Your task to perform on an android device: Open calendar and show me the third week of next month Image 0: 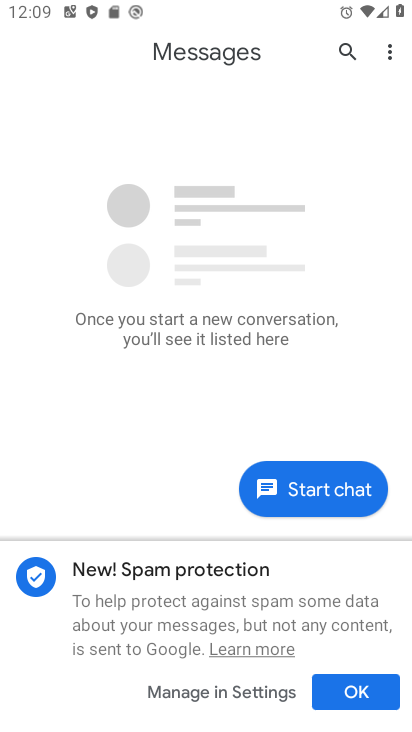
Step 0: press back button
Your task to perform on an android device: Open calendar and show me the third week of next month Image 1: 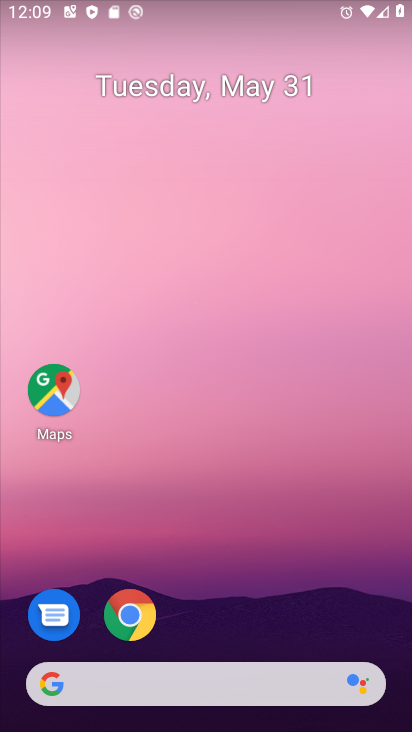
Step 1: drag from (354, 629) to (374, 206)
Your task to perform on an android device: Open calendar and show me the third week of next month Image 2: 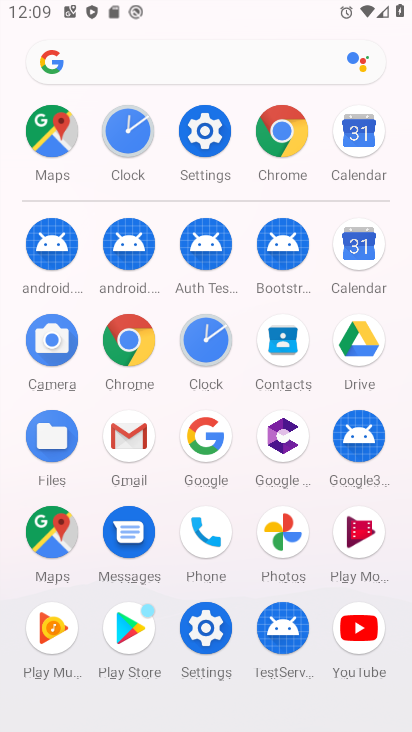
Step 2: click (360, 261)
Your task to perform on an android device: Open calendar and show me the third week of next month Image 3: 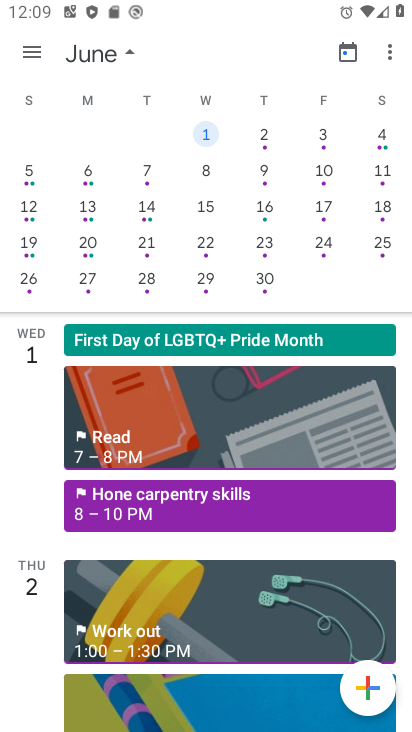
Step 3: click (83, 213)
Your task to perform on an android device: Open calendar and show me the third week of next month Image 4: 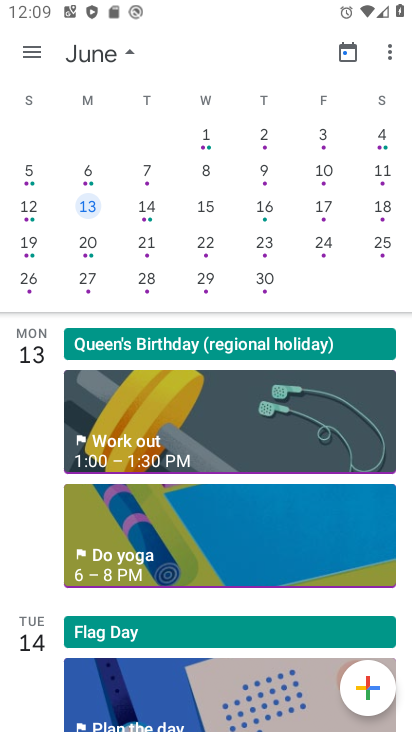
Step 4: task complete